Your task to perform on an android device: Go to Amazon Image 0: 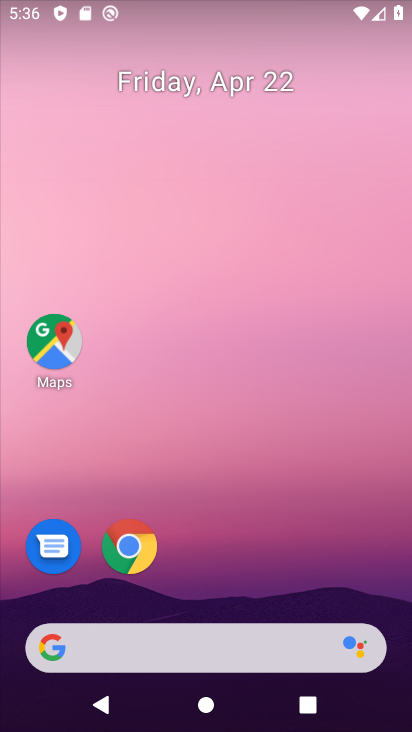
Step 0: click (222, 253)
Your task to perform on an android device: Go to Amazon Image 1: 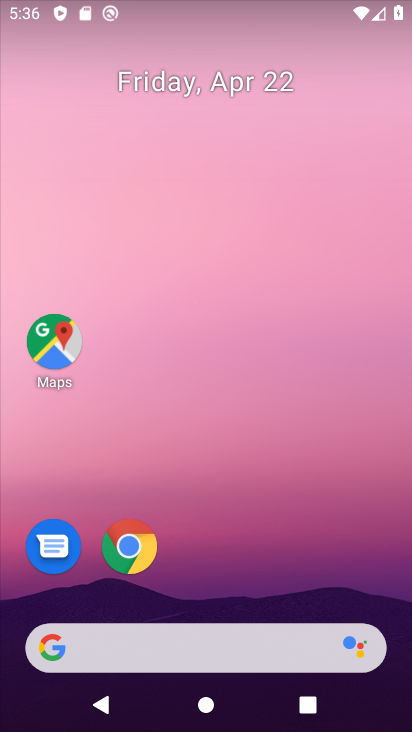
Step 1: drag from (219, 585) to (227, 168)
Your task to perform on an android device: Go to Amazon Image 2: 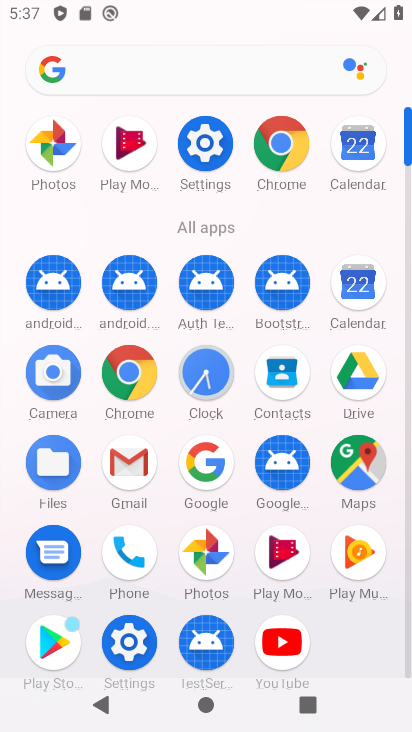
Step 2: click (292, 176)
Your task to perform on an android device: Go to Amazon Image 3: 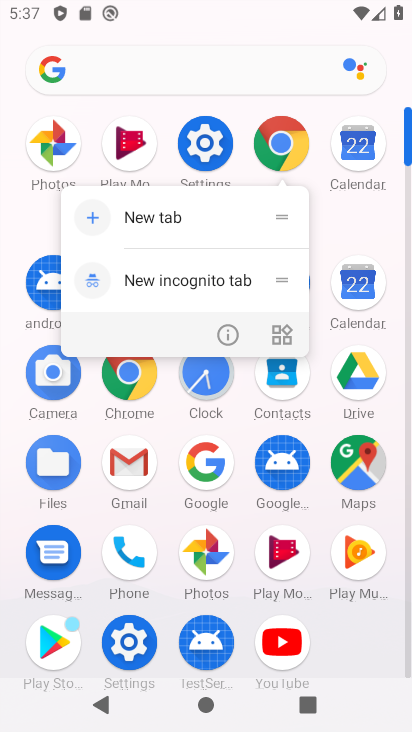
Step 3: click (277, 156)
Your task to perform on an android device: Go to Amazon Image 4: 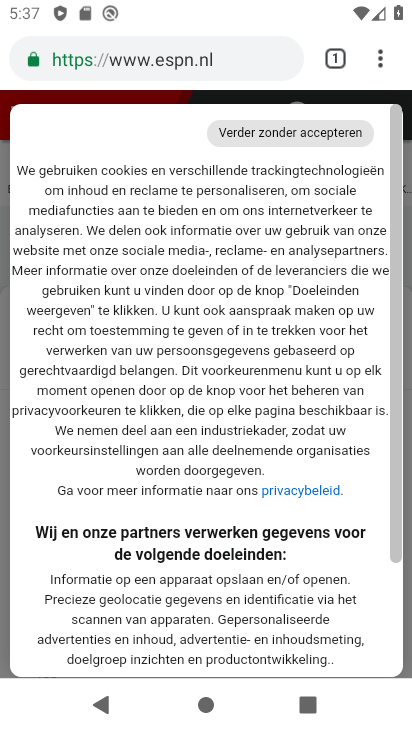
Step 4: click (328, 62)
Your task to perform on an android device: Go to Amazon Image 5: 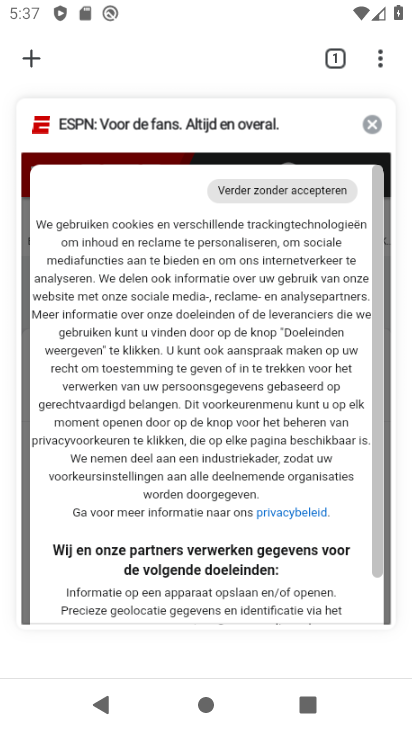
Step 5: click (29, 52)
Your task to perform on an android device: Go to Amazon Image 6: 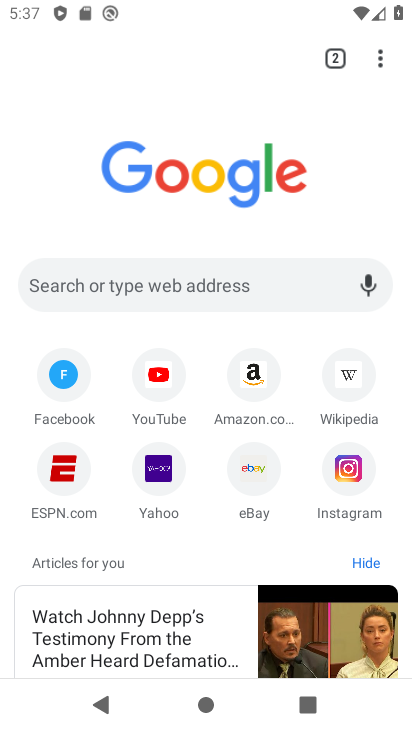
Step 6: click (244, 386)
Your task to perform on an android device: Go to Amazon Image 7: 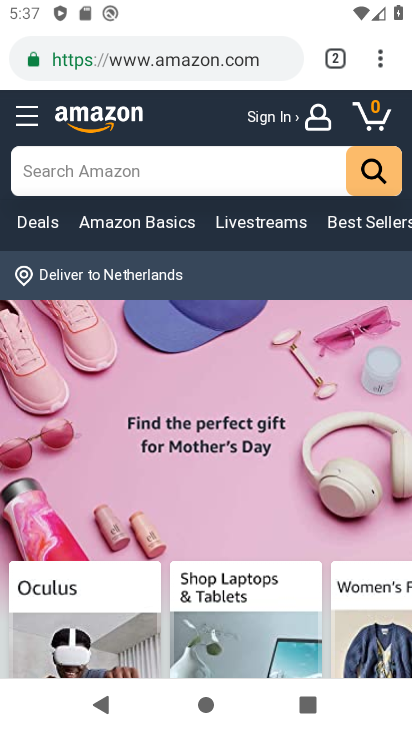
Step 7: task complete